Your task to perform on an android device: change notification settings in the gmail app Image 0: 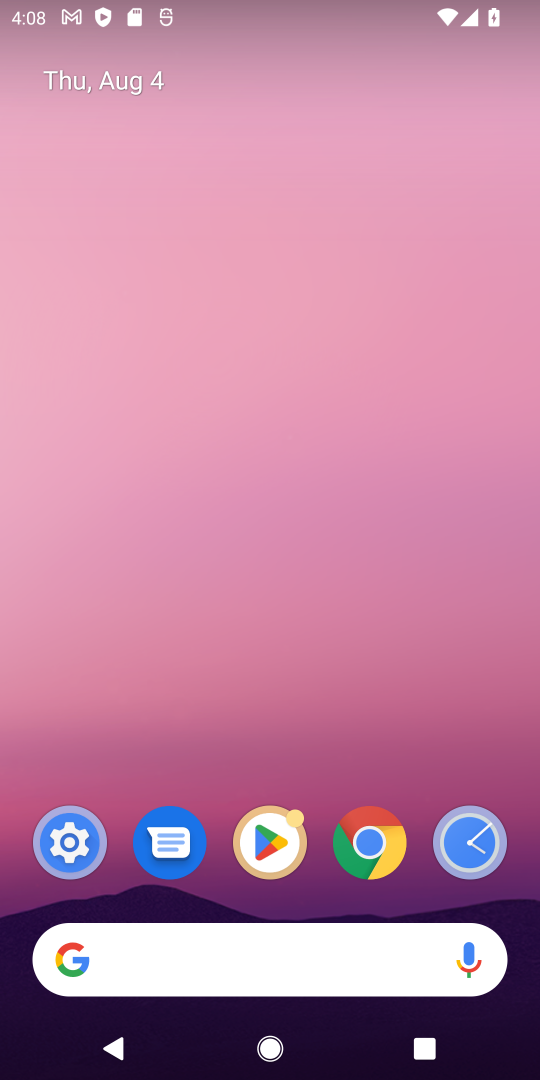
Step 0: drag from (269, 753) to (297, 22)
Your task to perform on an android device: change notification settings in the gmail app Image 1: 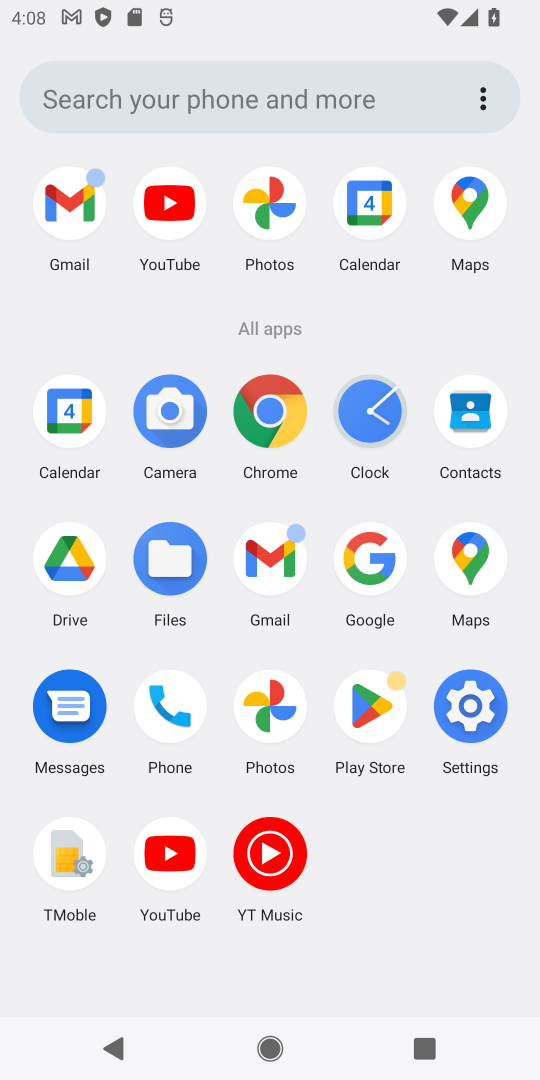
Step 1: click (79, 198)
Your task to perform on an android device: change notification settings in the gmail app Image 2: 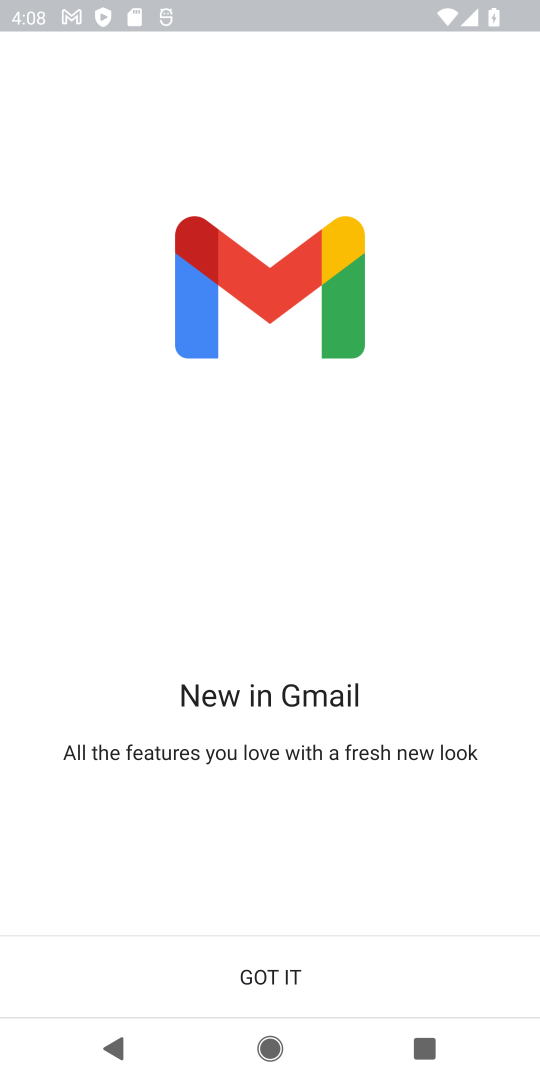
Step 2: click (225, 961)
Your task to perform on an android device: change notification settings in the gmail app Image 3: 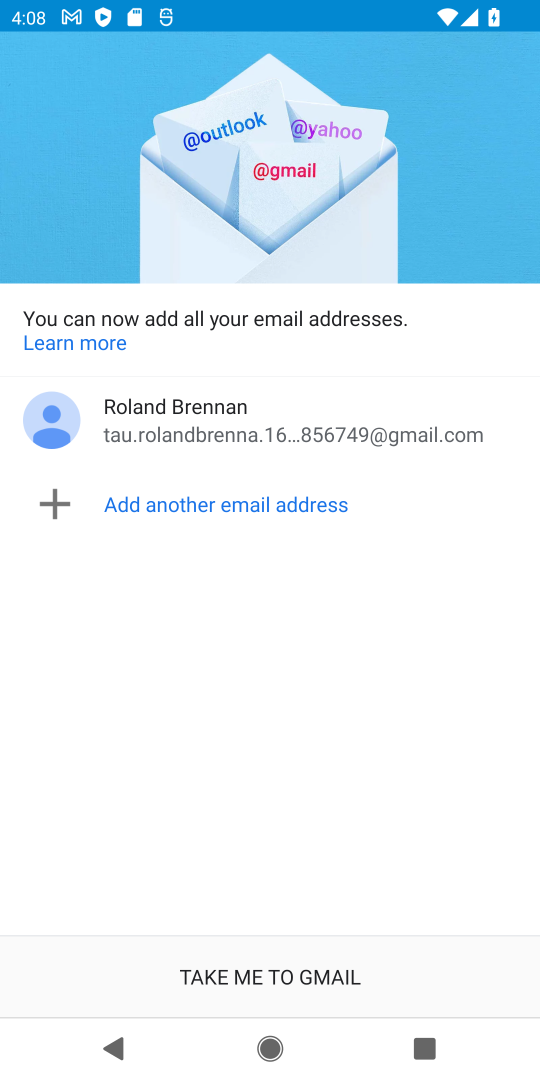
Step 3: click (225, 961)
Your task to perform on an android device: change notification settings in the gmail app Image 4: 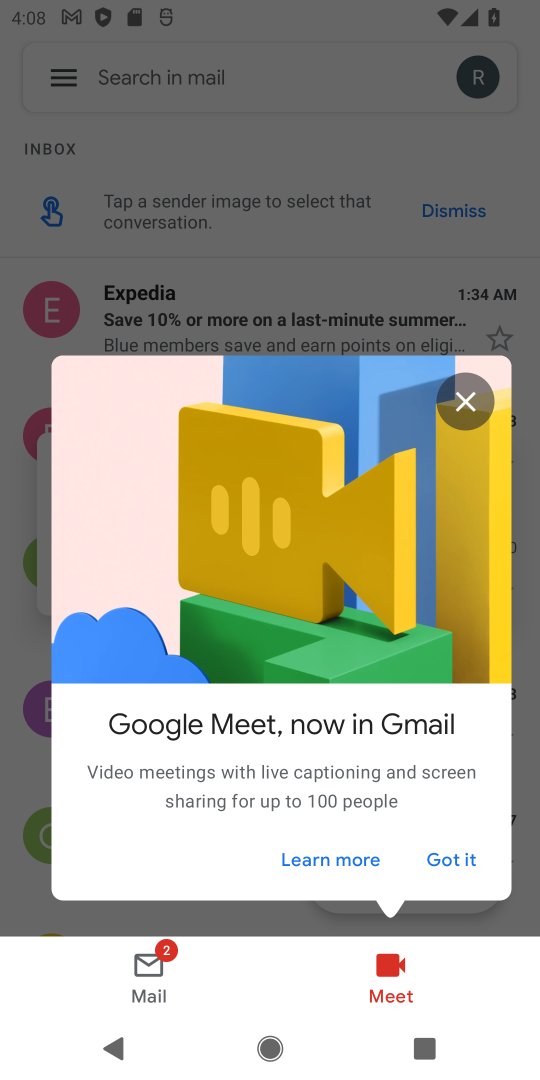
Step 4: click (468, 406)
Your task to perform on an android device: change notification settings in the gmail app Image 5: 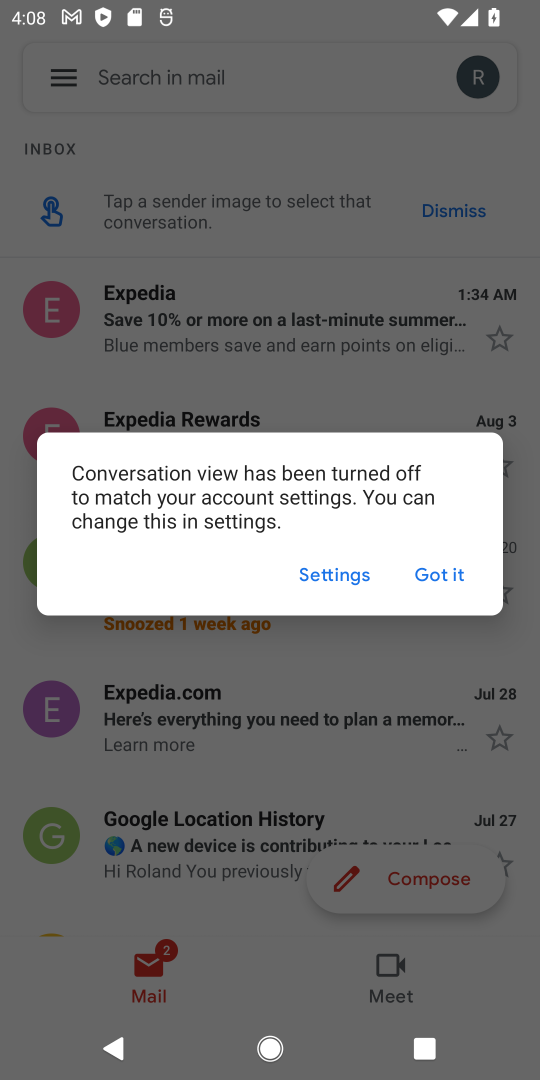
Step 5: click (422, 562)
Your task to perform on an android device: change notification settings in the gmail app Image 6: 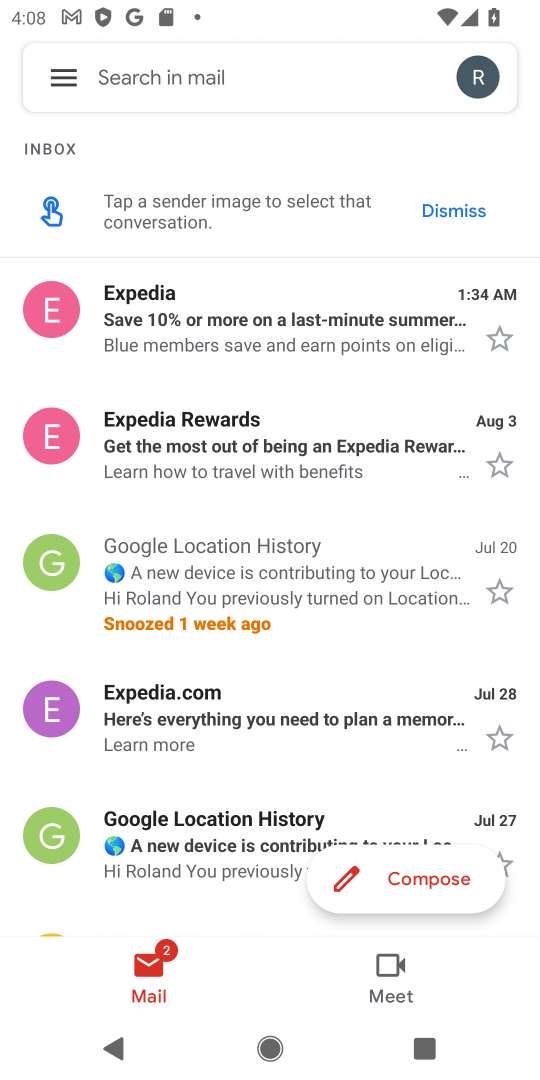
Step 6: click (50, 89)
Your task to perform on an android device: change notification settings in the gmail app Image 7: 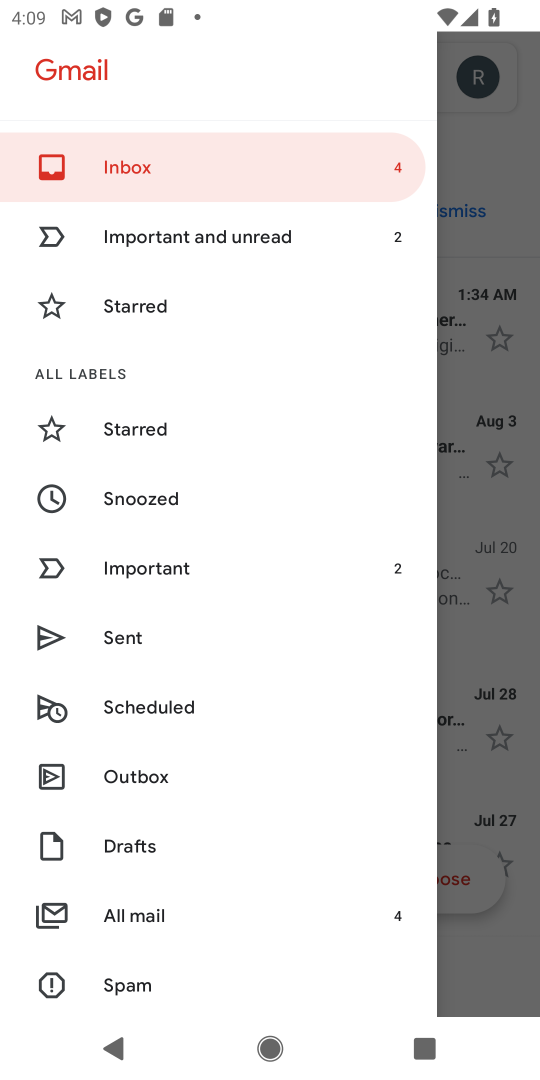
Step 7: drag from (285, 924) to (154, 232)
Your task to perform on an android device: change notification settings in the gmail app Image 8: 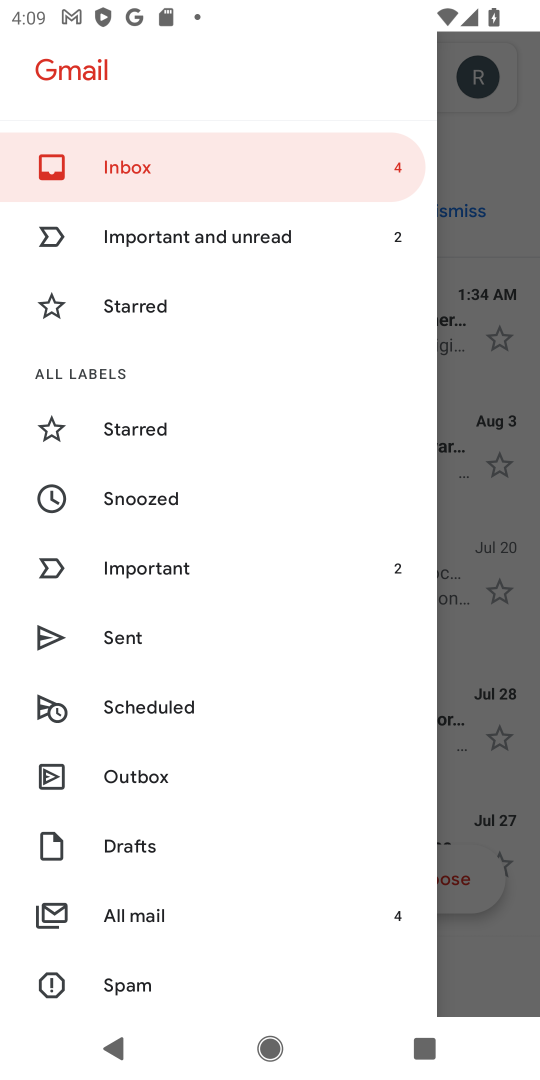
Step 8: drag from (202, 813) to (118, 317)
Your task to perform on an android device: change notification settings in the gmail app Image 9: 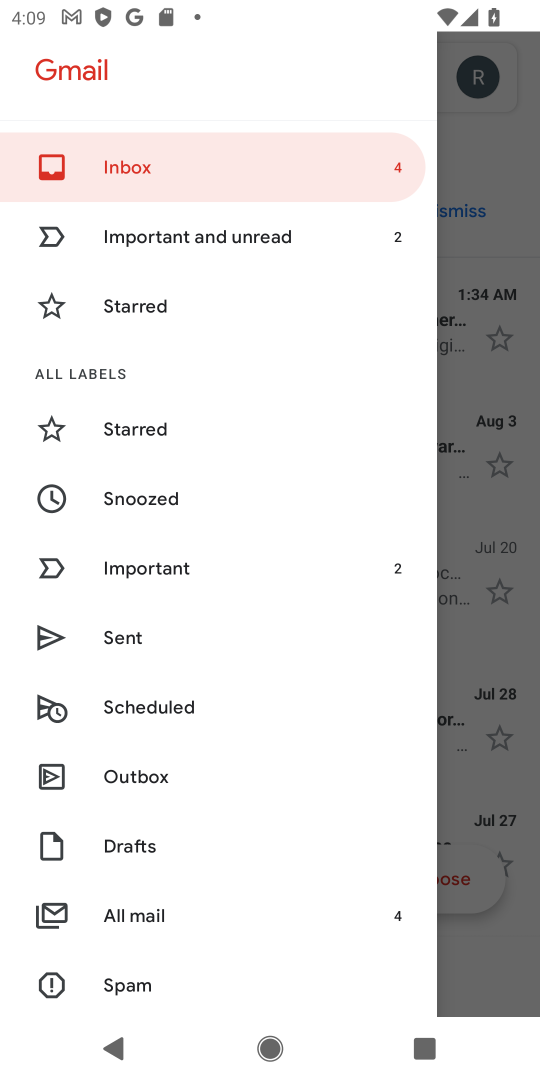
Step 9: drag from (138, 893) to (133, 89)
Your task to perform on an android device: change notification settings in the gmail app Image 10: 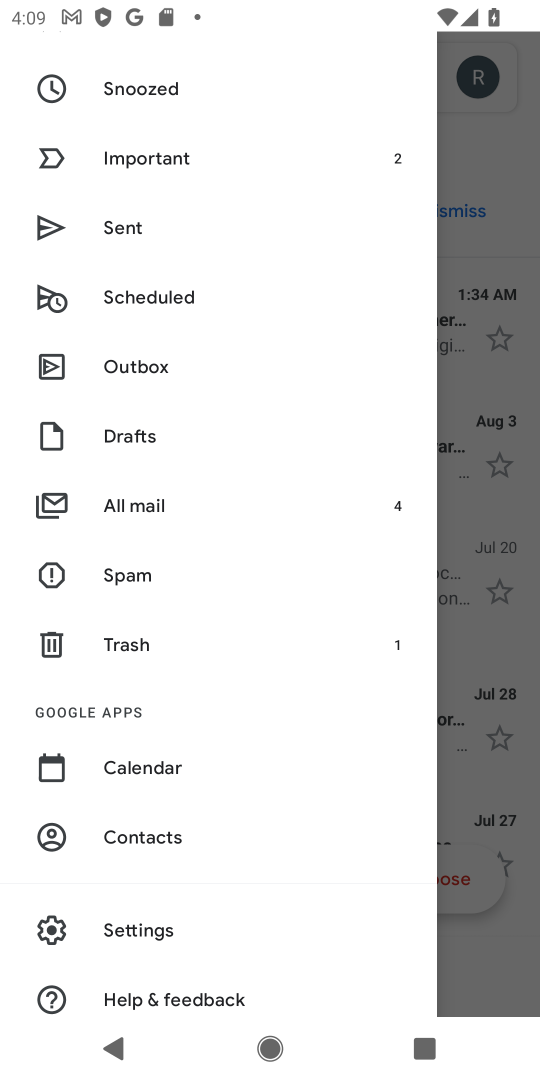
Step 10: click (238, 929)
Your task to perform on an android device: change notification settings in the gmail app Image 11: 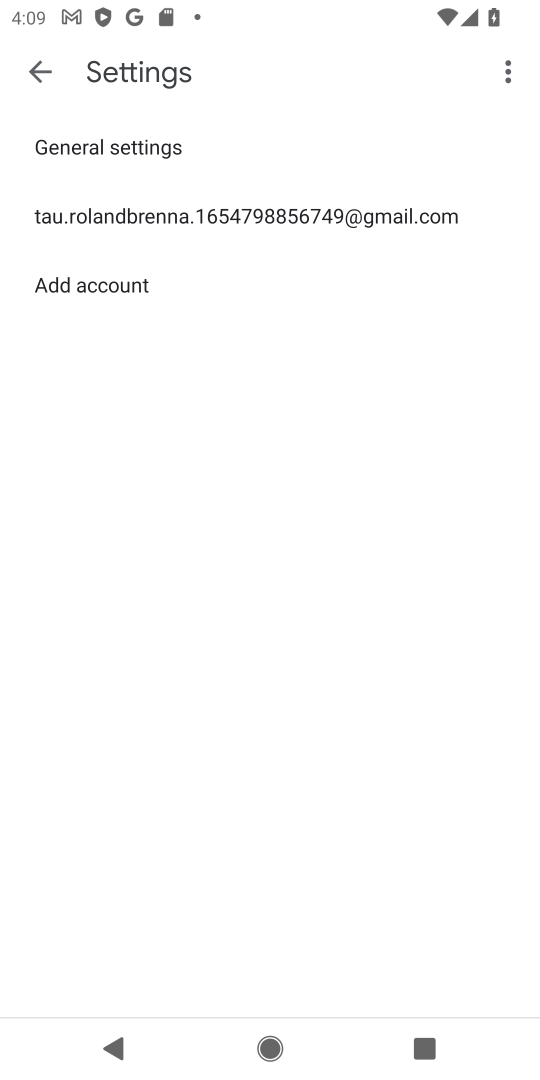
Step 11: click (284, 204)
Your task to perform on an android device: change notification settings in the gmail app Image 12: 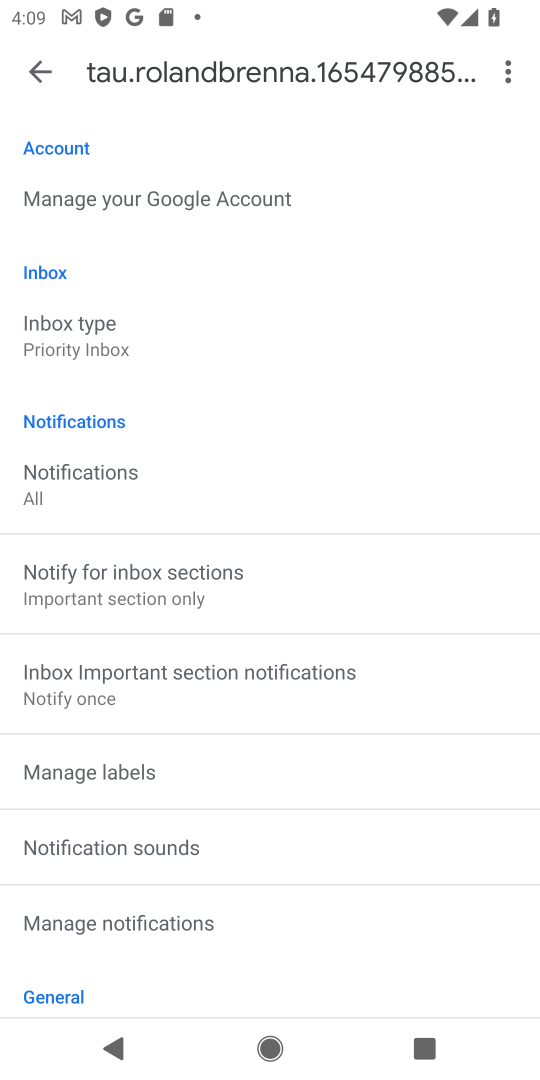
Step 12: click (163, 929)
Your task to perform on an android device: change notification settings in the gmail app Image 13: 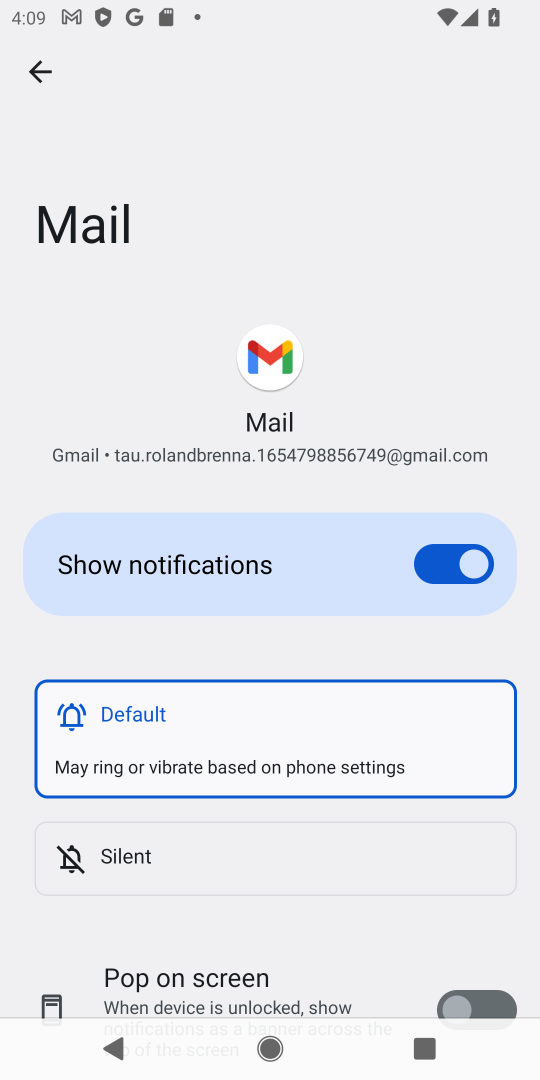
Step 13: click (457, 570)
Your task to perform on an android device: change notification settings in the gmail app Image 14: 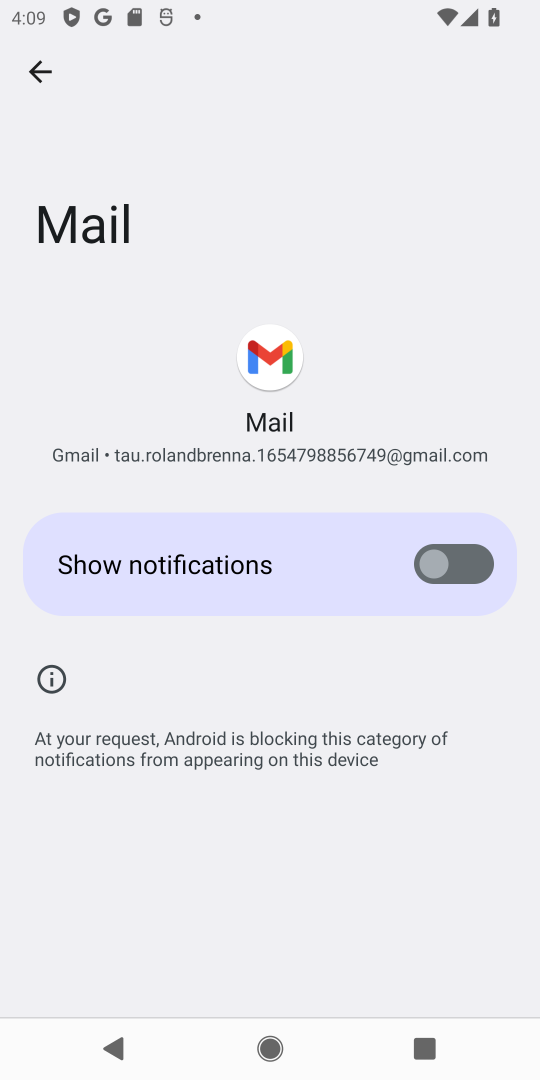
Step 14: task complete